Your task to perform on an android device: What's the weather? Image 0: 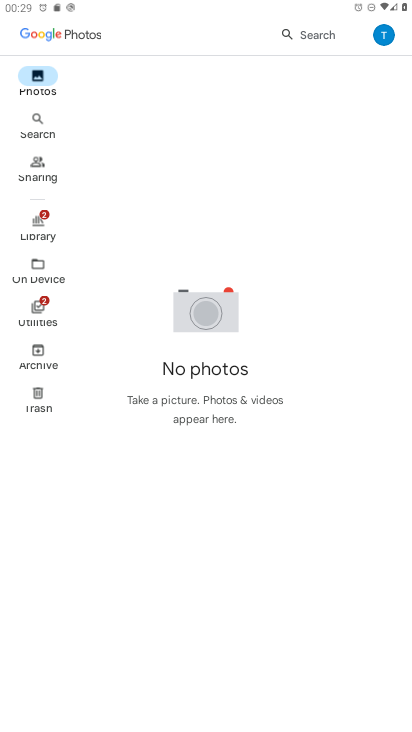
Step 0: press home button
Your task to perform on an android device: What's the weather? Image 1: 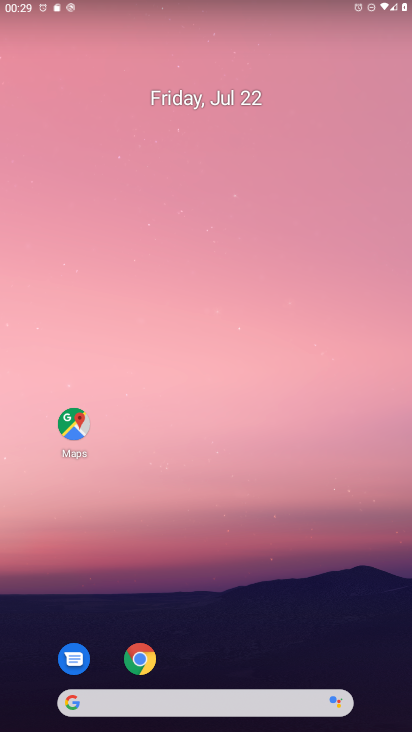
Step 1: drag from (226, 704) to (159, 206)
Your task to perform on an android device: What's the weather? Image 2: 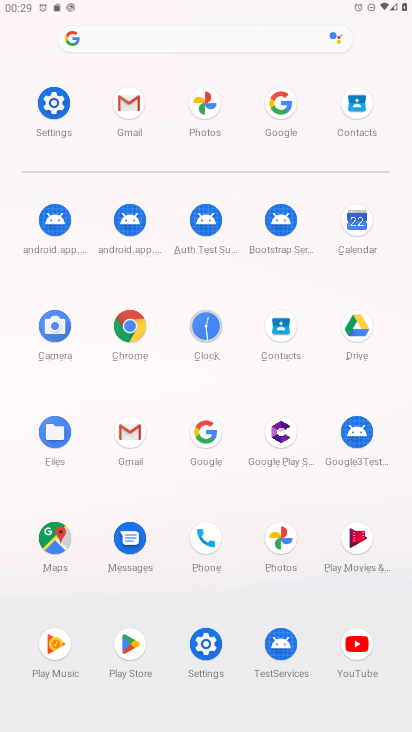
Step 2: click (201, 432)
Your task to perform on an android device: What's the weather? Image 3: 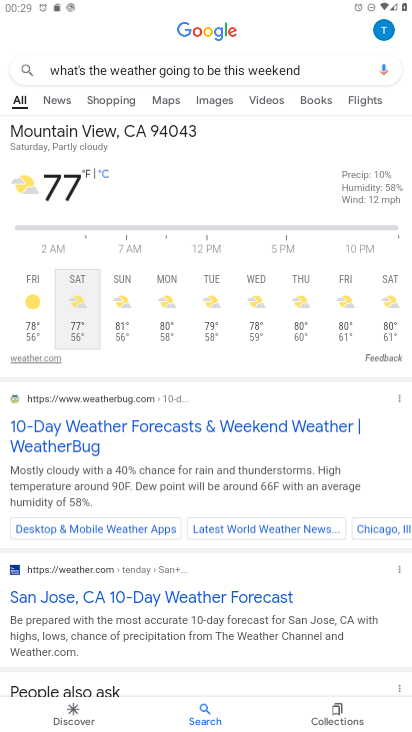
Step 3: click (317, 78)
Your task to perform on an android device: What's the weather? Image 4: 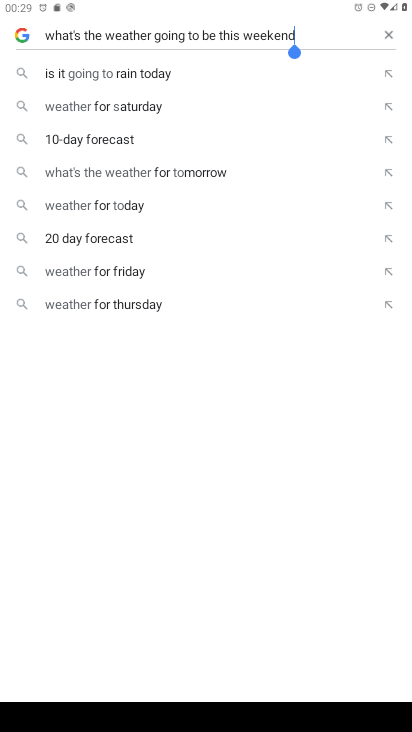
Step 4: click (387, 32)
Your task to perform on an android device: What's the weather? Image 5: 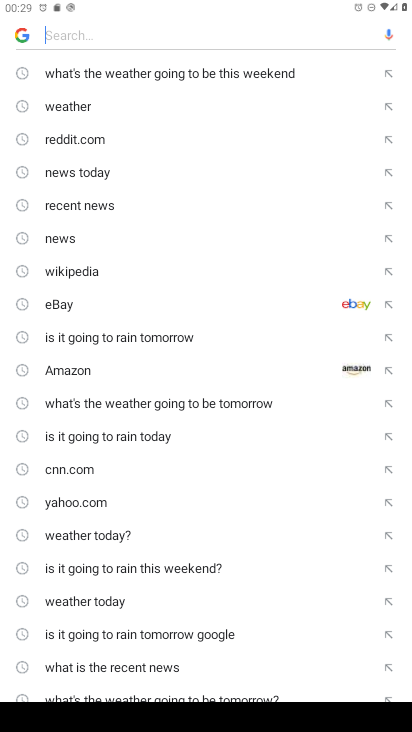
Step 5: click (71, 106)
Your task to perform on an android device: What's the weather? Image 6: 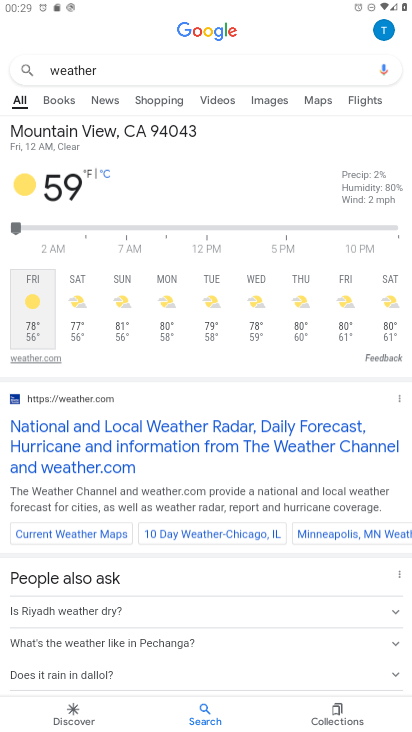
Step 6: task complete